Your task to perform on an android device: read, delete, or share a saved page in the chrome app Image 0: 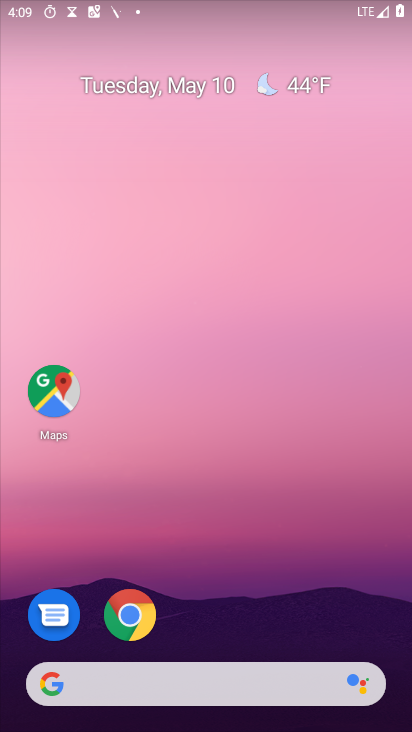
Step 0: drag from (288, 569) to (346, 4)
Your task to perform on an android device: read, delete, or share a saved page in the chrome app Image 1: 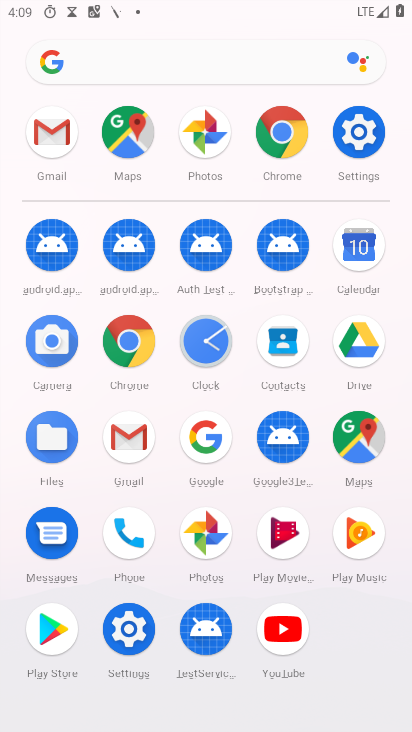
Step 1: click (123, 350)
Your task to perform on an android device: read, delete, or share a saved page in the chrome app Image 2: 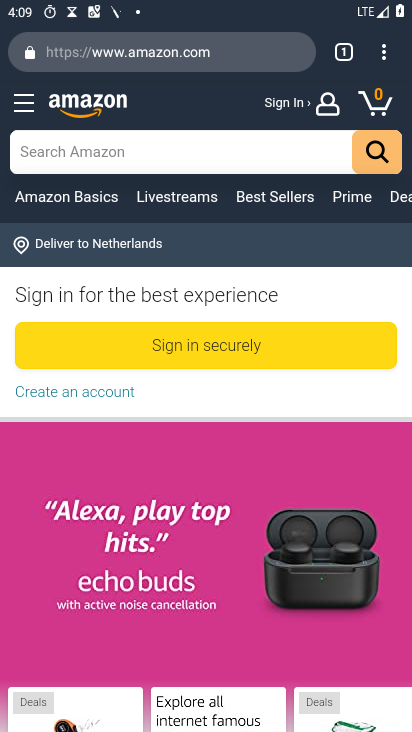
Step 2: task complete